Your task to perform on an android device: Open the calendar and show me this week's events Image 0: 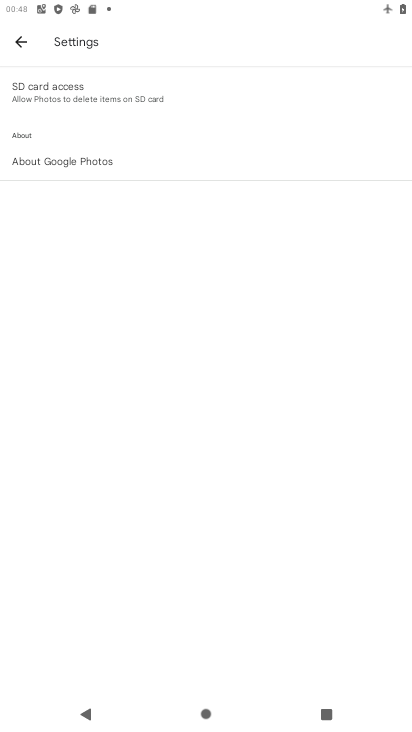
Step 0: press home button
Your task to perform on an android device: Open the calendar and show me this week's events Image 1: 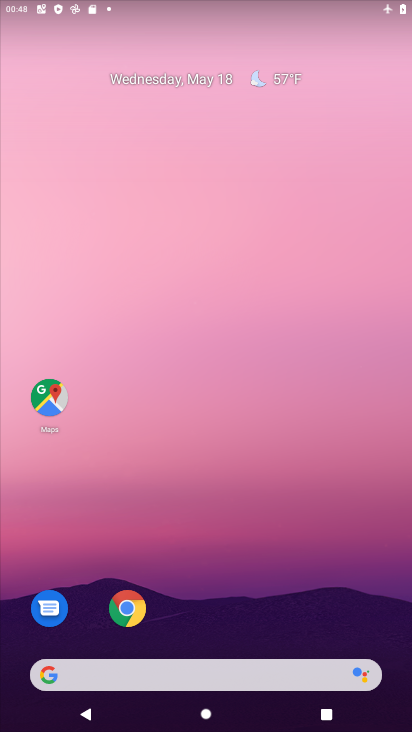
Step 1: drag from (236, 569) to (131, 117)
Your task to perform on an android device: Open the calendar and show me this week's events Image 2: 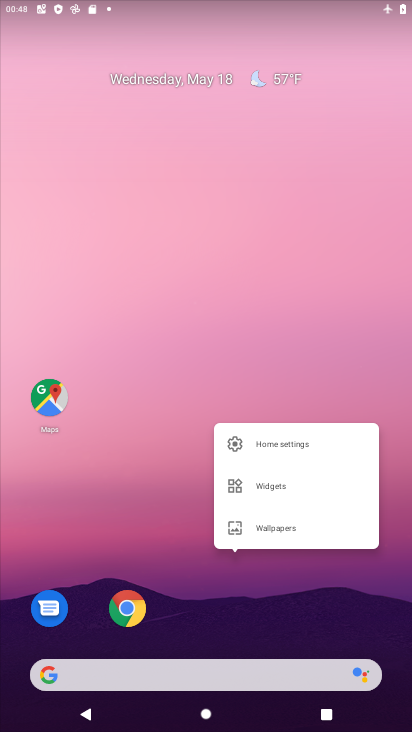
Step 2: click (161, 473)
Your task to perform on an android device: Open the calendar and show me this week's events Image 3: 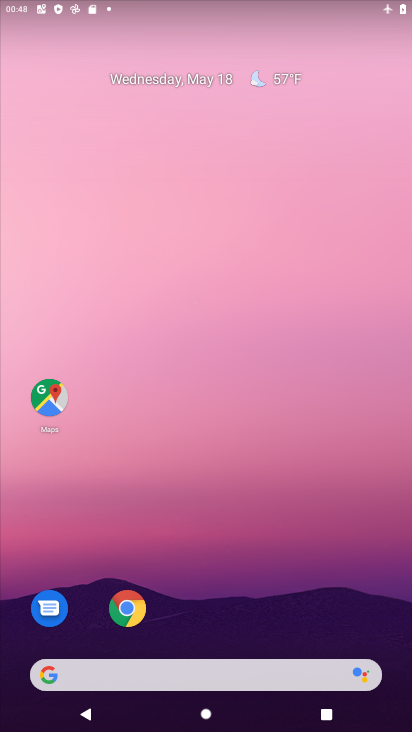
Step 3: drag from (251, 588) to (207, 39)
Your task to perform on an android device: Open the calendar and show me this week's events Image 4: 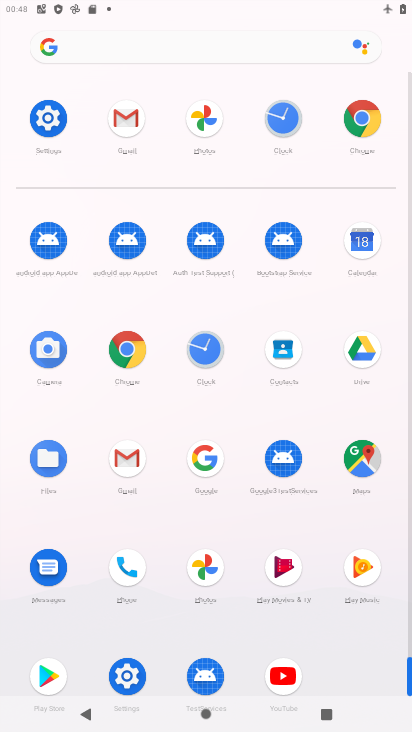
Step 4: click (357, 243)
Your task to perform on an android device: Open the calendar and show me this week's events Image 5: 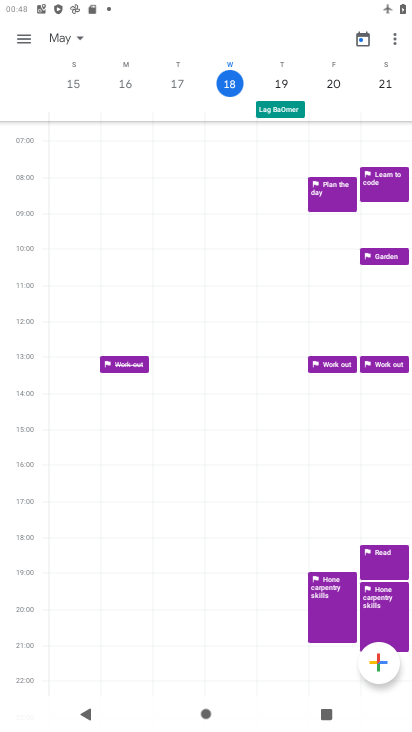
Step 5: task complete